Your task to perform on an android device: empty trash in google photos Image 0: 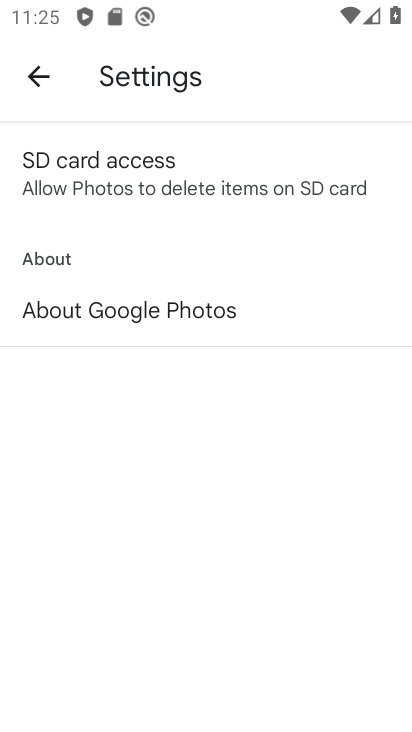
Step 0: press home button
Your task to perform on an android device: empty trash in google photos Image 1: 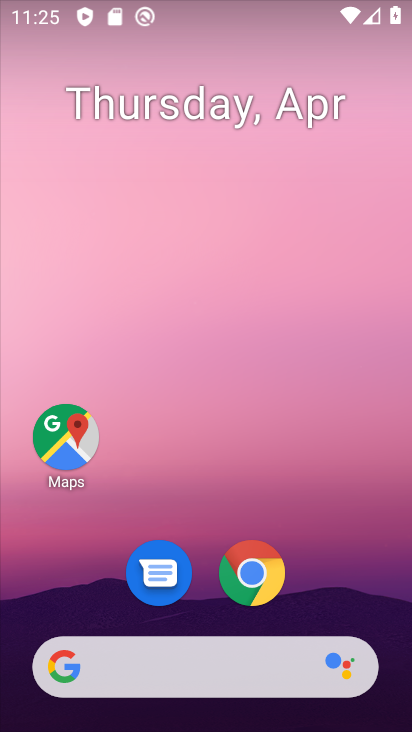
Step 1: drag from (292, 557) to (245, 165)
Your task to perform on an android device: empty trash in google photos Image 2: 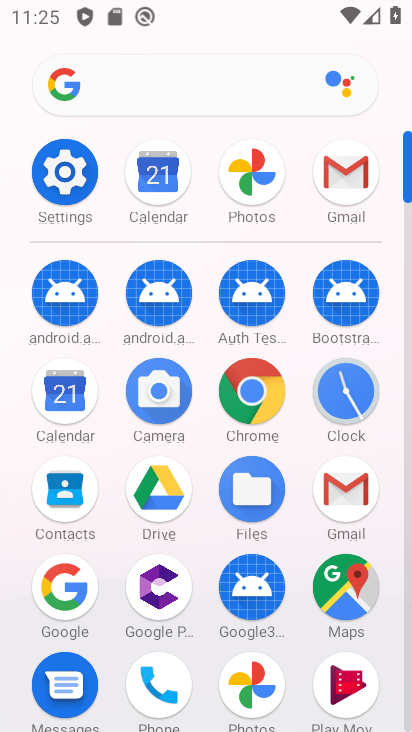
Step 2: click (267, 682)
Your task to perform on an android device: empty trash in google photos Image 3: 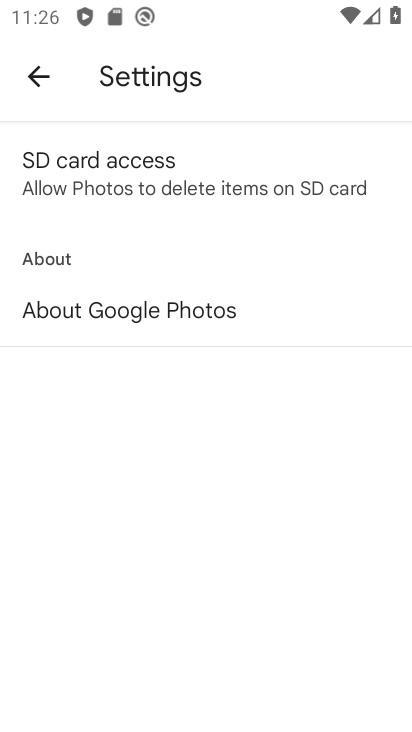
Step 3: press home button
Your task to perform on an android device: empty trash in google photos Image 4: 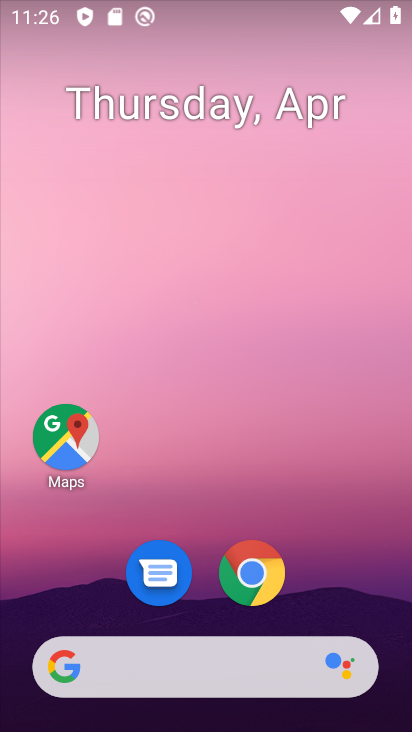
Step 4: drag from (302, 482) to (263, 51)
Your task to perform on an android device: empty trash in google photos Image 5: 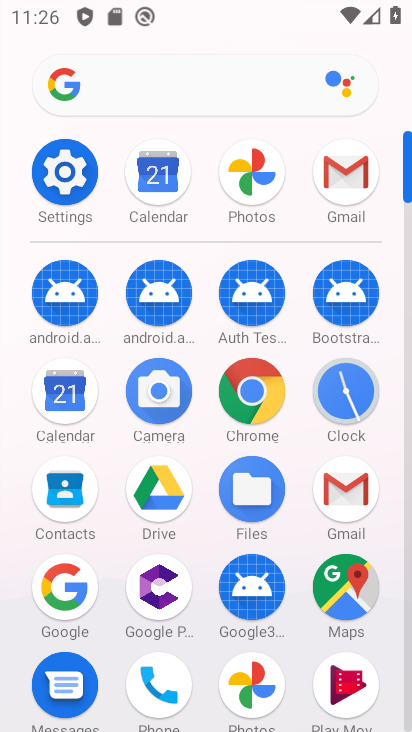
Step 5: click (248, 661)
Your task to perform on an android device: empty trash in google photos Image 6: 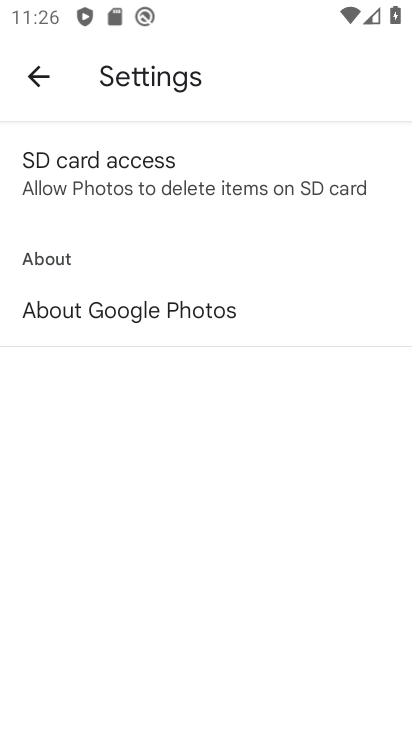
Step 6: click (34, 76)
Your task to perform on an android device: empty trash in google photos Image 7: 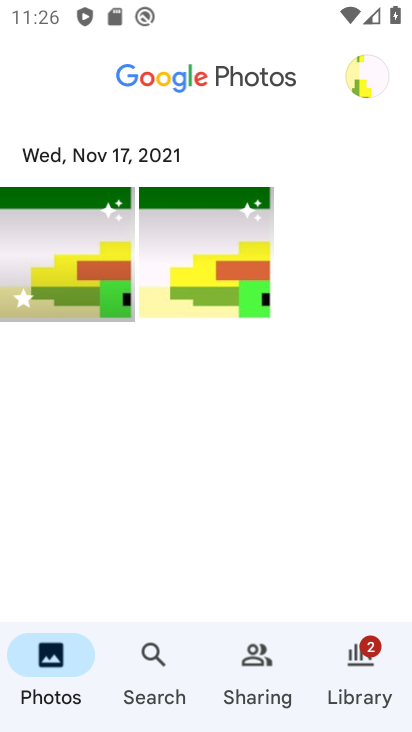
Step 7: click (367, 674)
Your task to perform on an android device: empty trash in google photos Image 8: 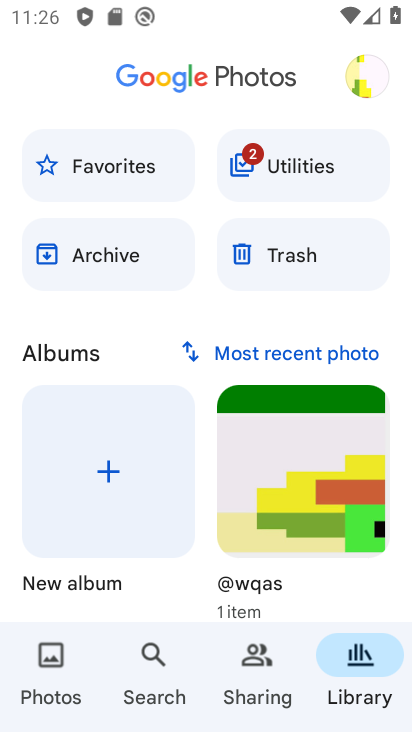
Step 8: click (273, 263)
Your task to perform on an android device: empty trash in google photos Image 9: 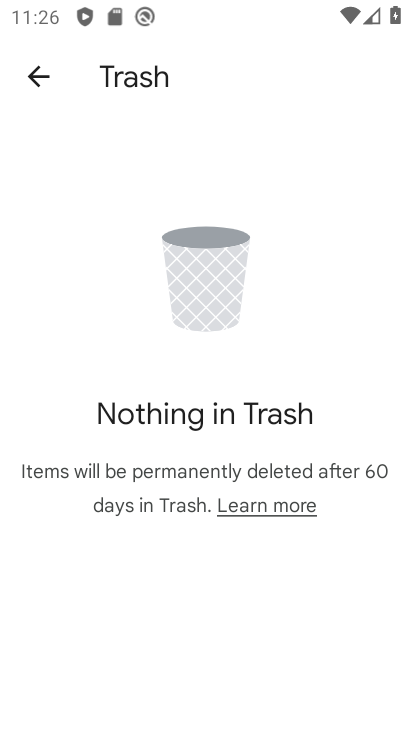
Step 9: task complete